Your task to perform on an android device: check storage Image 0: 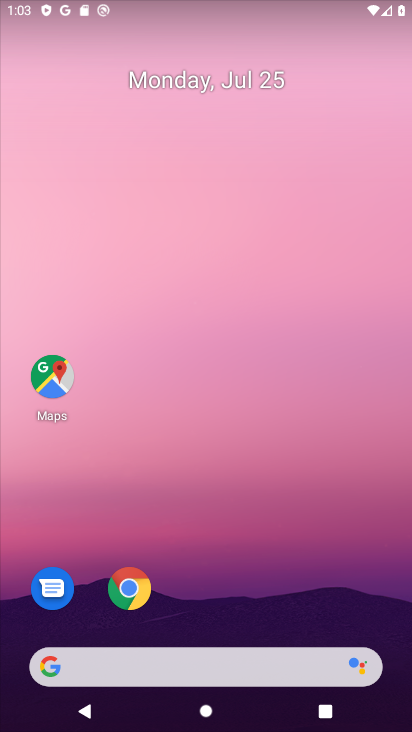
Step 0: drag from (203, 609) to (187, 129)
Your task to perform on an android device: check storage Image 1: 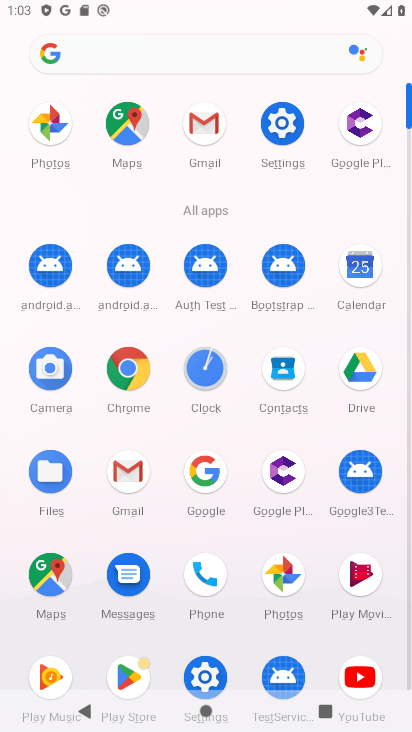
Step 1: click (282, 126)
Your task to perform on an android device: check storage Image 2: 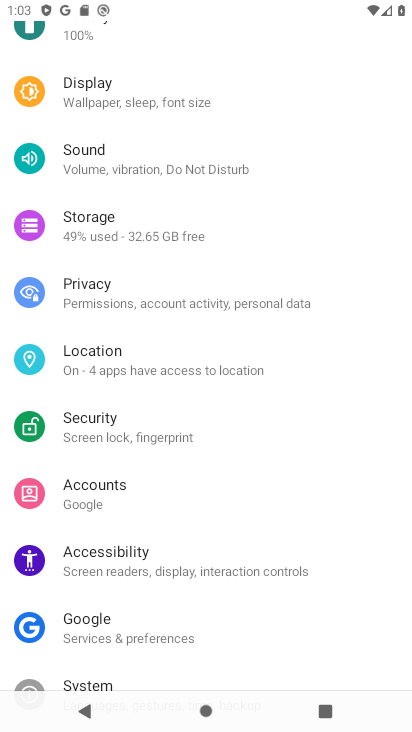
Step 2: click (102, 221)
Your task to perform on an android device: check storage Image 3: 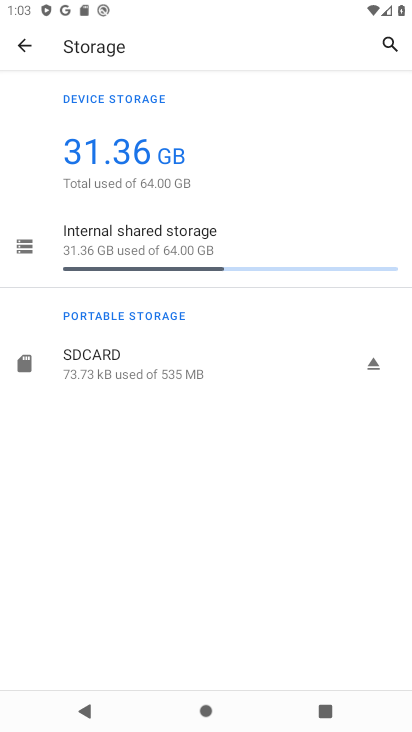
Step 3: task complete